Your task to perform on an android device: turn off notifications in google photos Image 0: 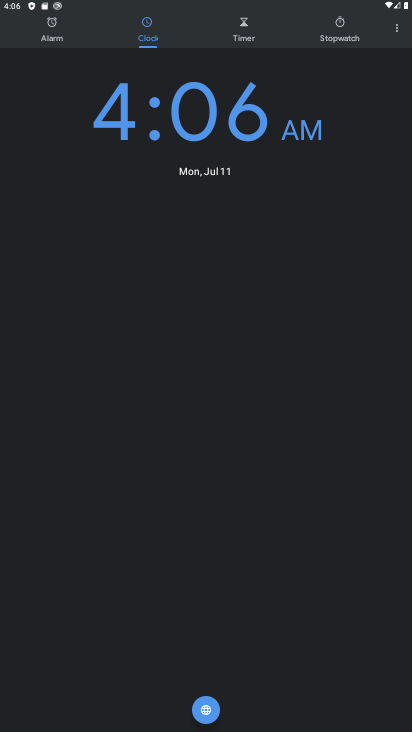
Step 0: press home button
Your task to perform on an android device: turn off notifications in google photos Image 1: 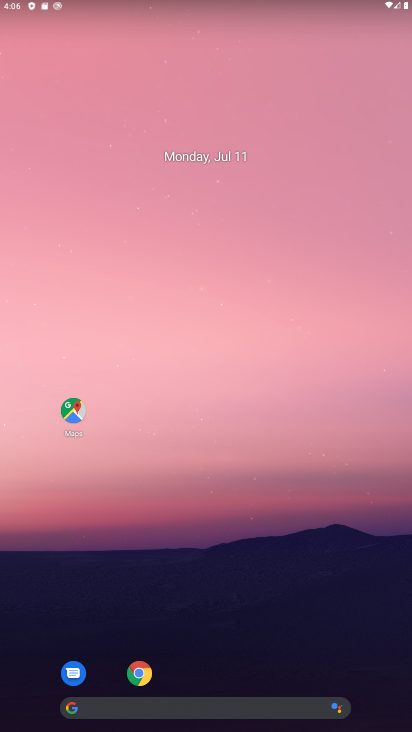
Step 1: drag from (208, 665) to (185, 84)
Your task to perform on an android device: turn off notifications in google photos Image 2: 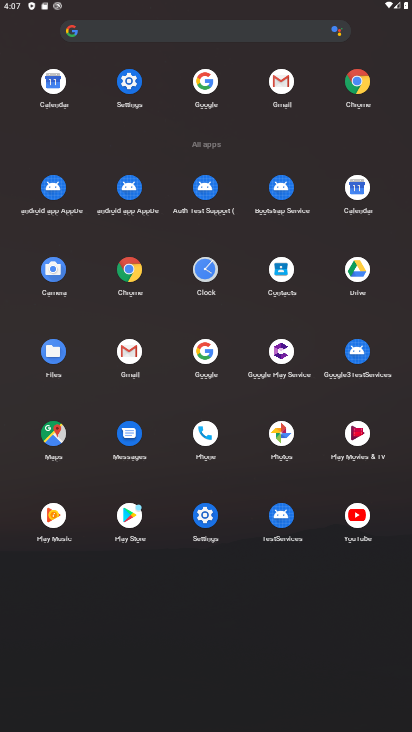
Step 2: click (283, 433)
Your task to perform on an android device: turn off notifications in google photos Image 3: 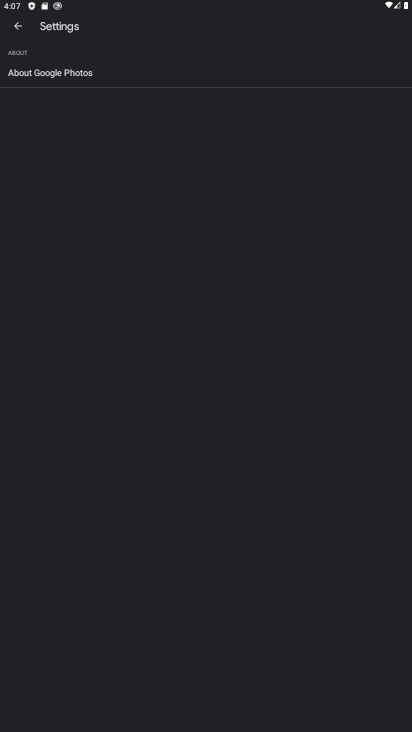
Step 3: press back button
Your task to perform on an android device: turn off notifications in google photos Image 4: 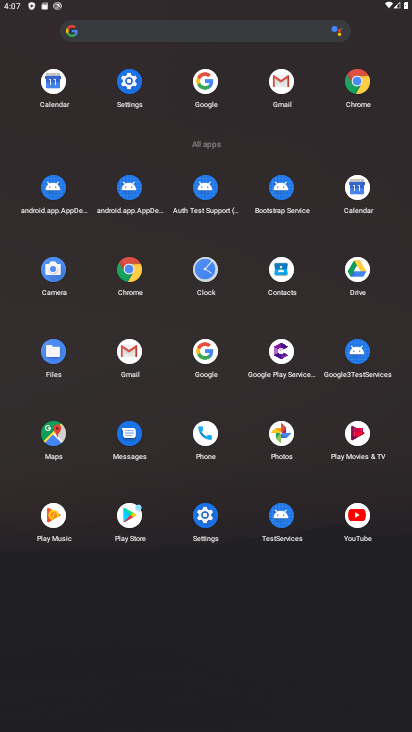
Step 4: click (280, 432)
Your task to perform on an android device: turn off notifications in google photos Image 5: 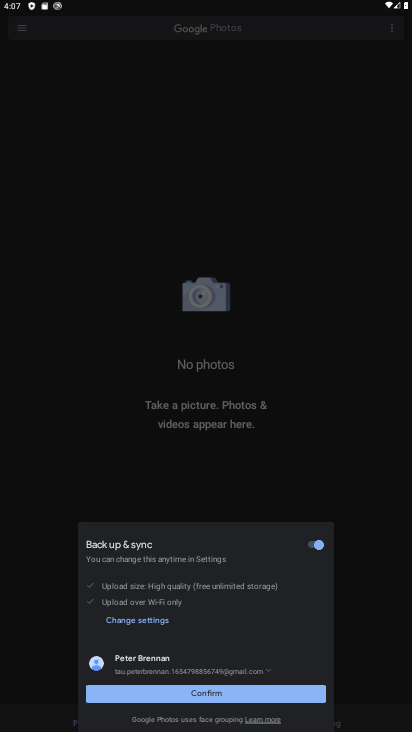
Step 5: click (215, 691)
Your task to perform on an android device: turn off notifications in google photos Image 6: 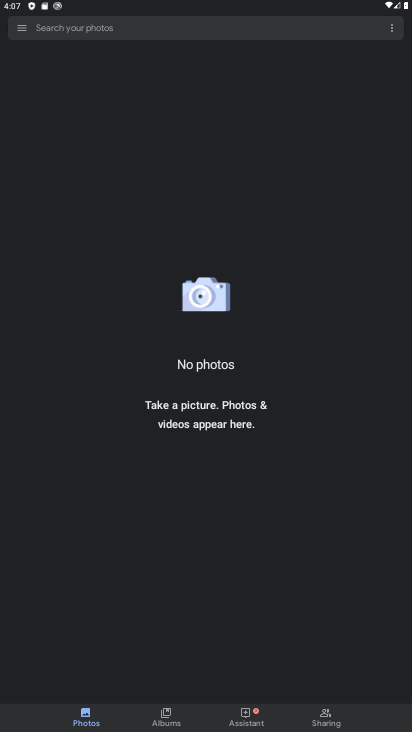
Step 6: click (23, 29)
Your task to perform on an android device: turn off notifications in google photos Image 7: 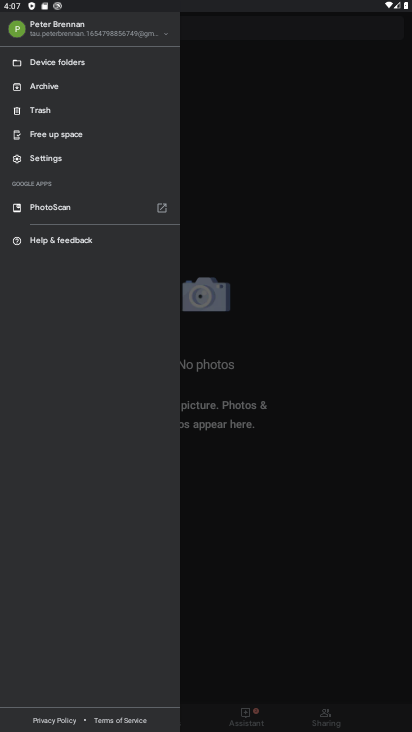
Step 7: click (42, 159)
Your task to perform on an android device: turn off notifications in google photos Image 8: 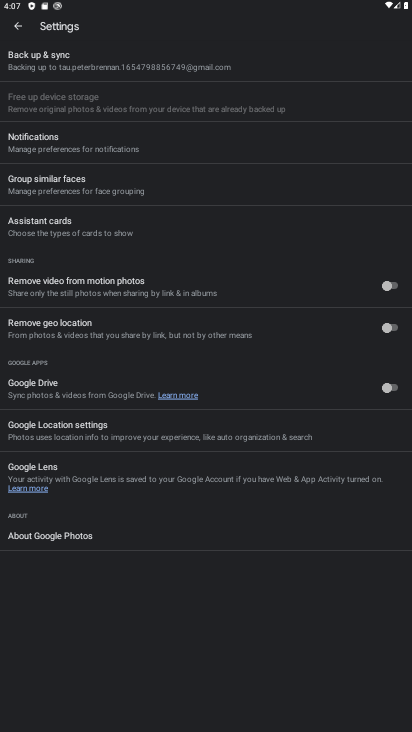
Step 8: click (47, 147)
Your task to perform on an android device: turn off notifications in google photos Image 9: 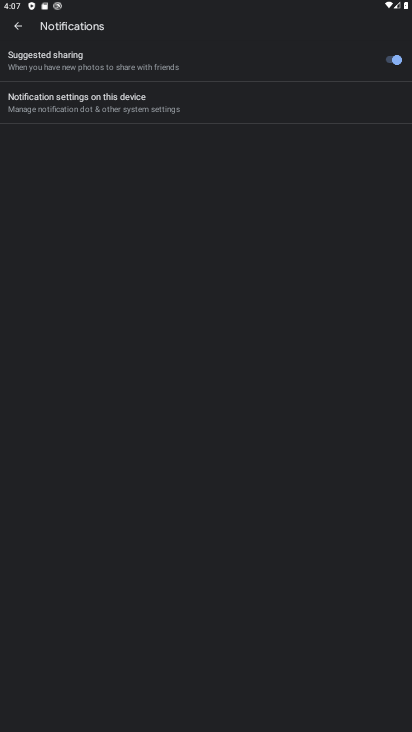
Step 9: click (68, 105)
Your task to perform on an android device: turn off notifications in google photos Image 10: 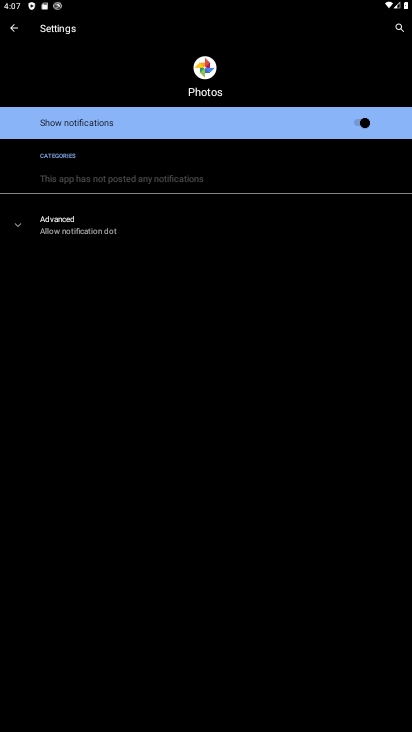
Step 10: click (360, 120)
Your task to perform on an android device: turn off notifications in google photos Image 11: 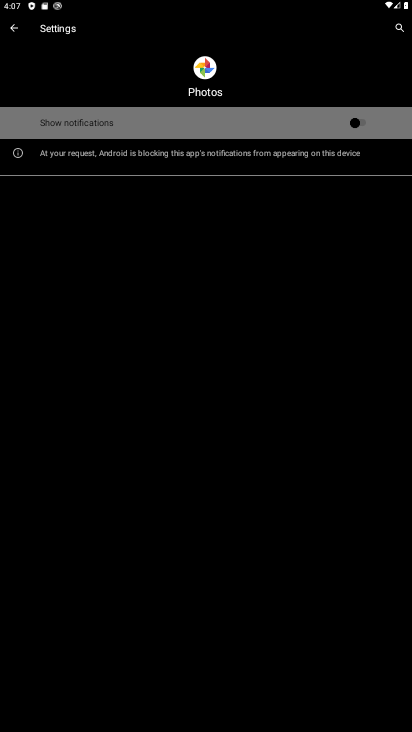
Step 11: task complete